Your task to perform on an android device: Set the phone to "Do not disturb". Image 0: 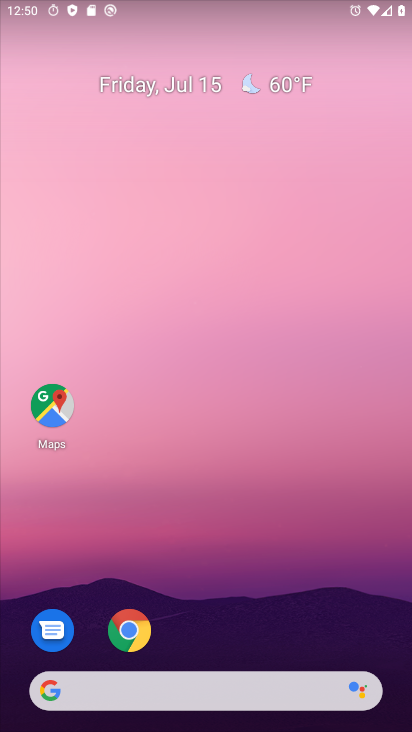
Step 0: drag from (224, 318) to (224, 159)
Your task to perform on an android device: Set the phone to "Do not disturb". Image 1: 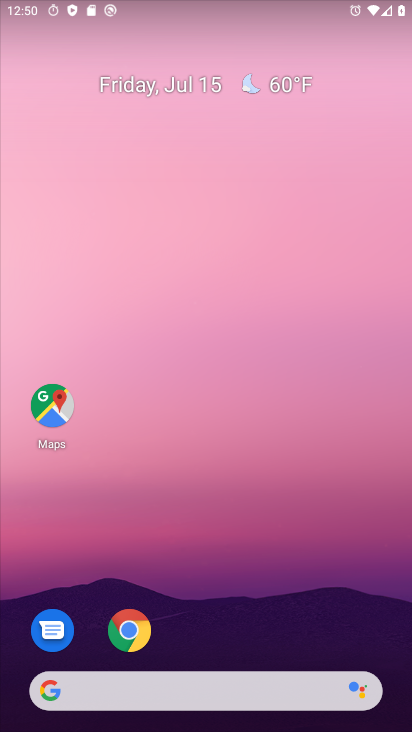
Step 1: drag from (220, 632) to (235, 221)
Your task to perform on an android device: Set the phone to "Do not disturb". Image 2: 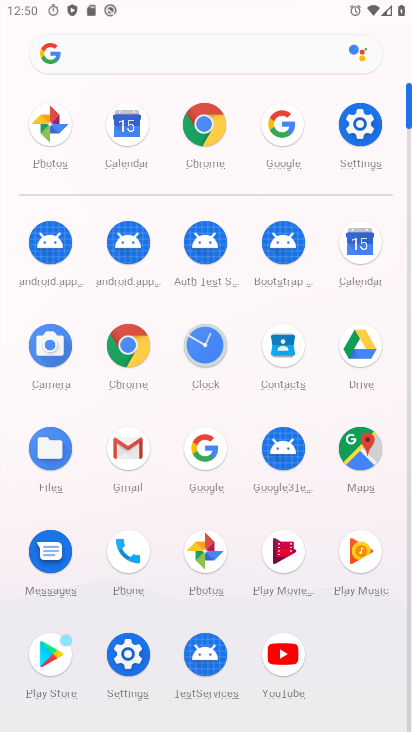
Step 2: click (355, 126)
Your task to perform on an android device: Set the phone to "Do not disturb". Image 3: 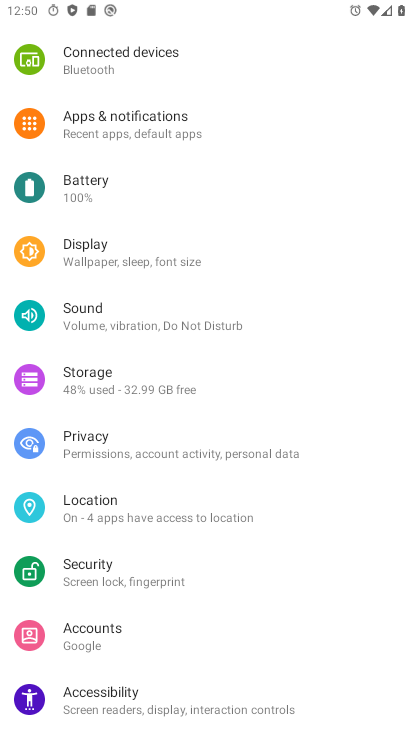
Step 3: click (108, 317)
Your task to perform on an android device: Set the phone to "Do not disturb". Image 4: 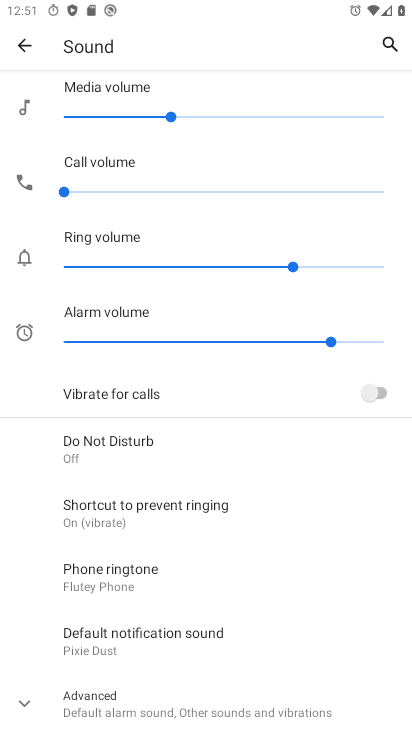
Step 4: click (114, 466)
Your task to perform on an android device: Set the phone to "Do not disturb". Image 5: 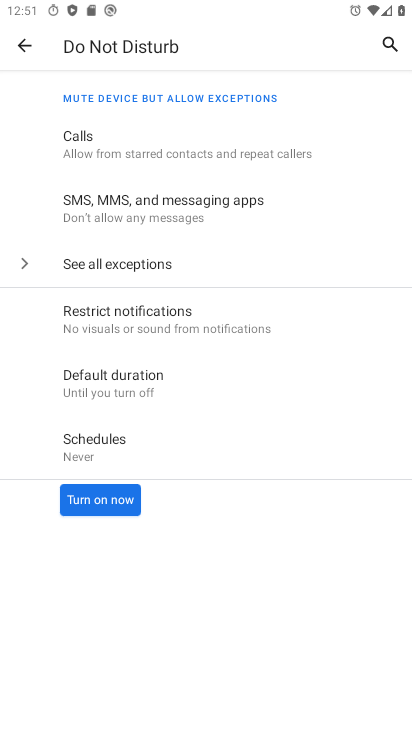
Step 5: click (84, 503)
Your task to perform on an android device: Set the phone to "Do not disturb". Image 6: 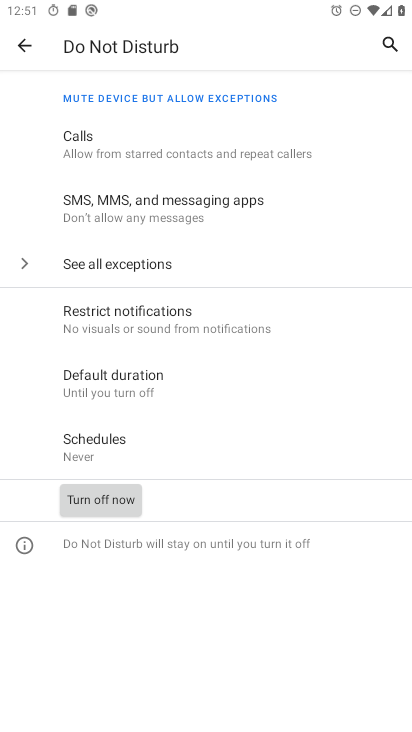
Step 6: task complete